Your task to perform on an android device: turn on the 12-hour format for clock Image 0: 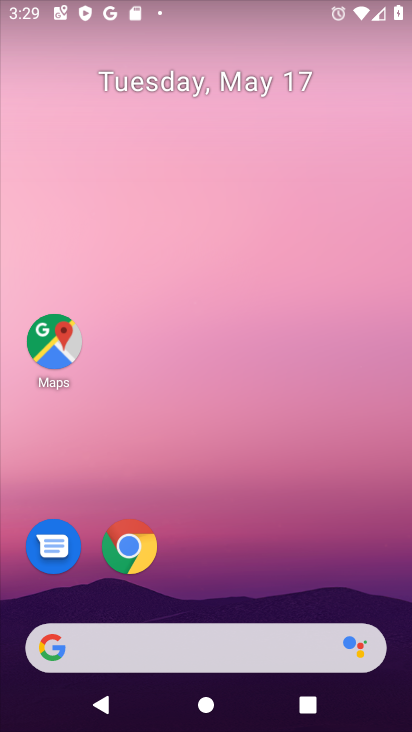
Step 0: drag from (405, 684) to (324, 316)
Your task to perform on an android device: turn on the 12-hour format for clock Image 1: 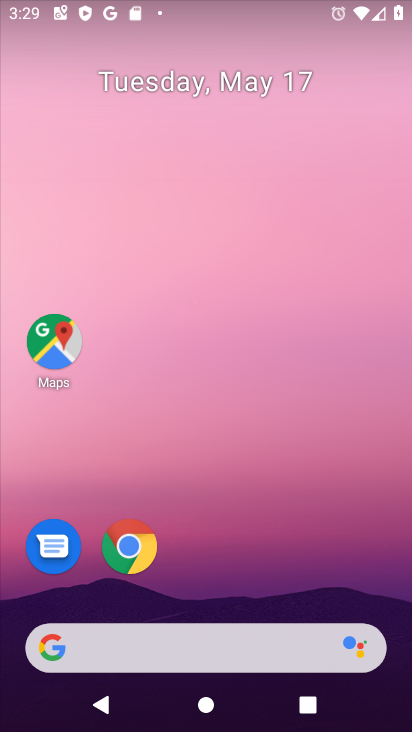
Step 1: click (371, 311)
Your task to perform on an android device: turn on the 12-hour format for clock Image 2: 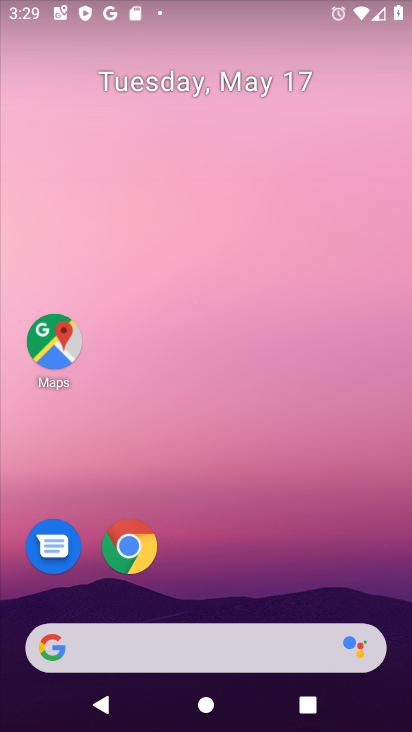
Step 2: drag from (403, 672) to (342, 381)
Your task to perform on an android device: turn on the 12-hour format for clock Image 3: 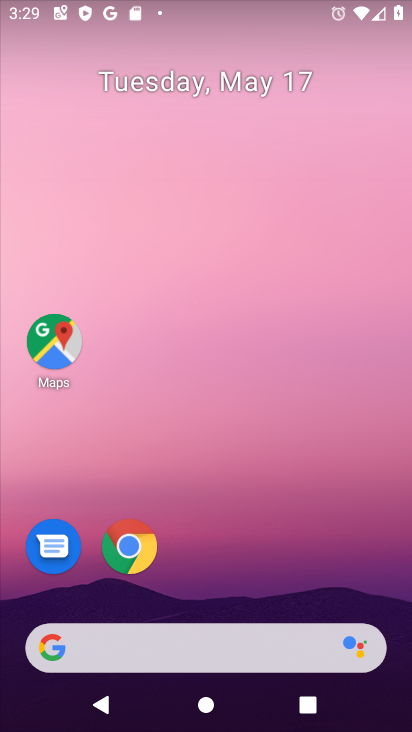
Step 3: drag from (381, 529) to (340, 151)
Your task to perform on an android device: turn on the 12-hour format for clock Image 4: 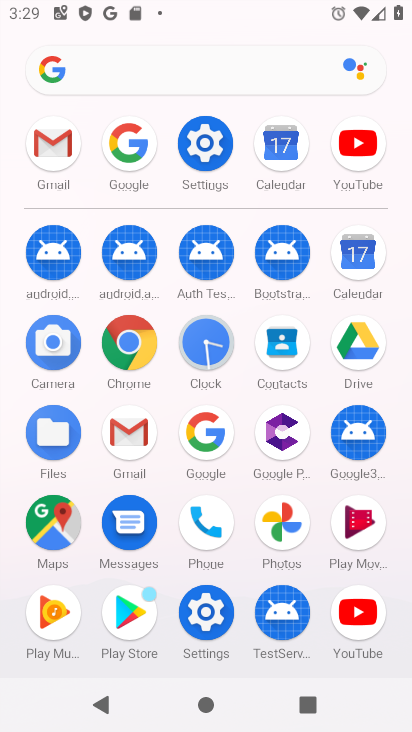
Step 4: click (210, 347)
Your task to perform on an android device: turn on the 12-hour format for clock Image 5: 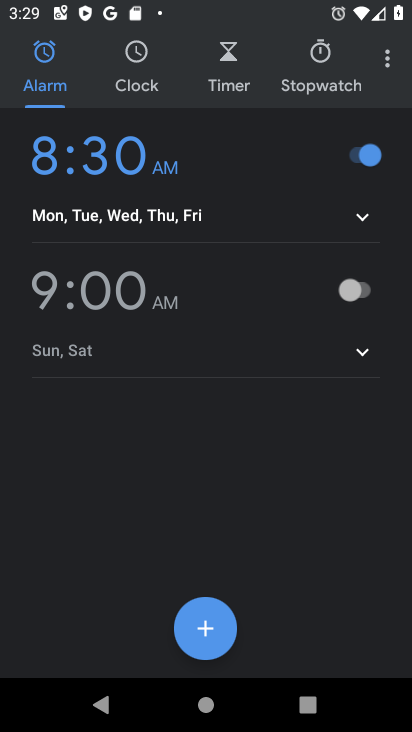
Step 5: click (387, 57)
Your task to perform on an android device: turn on the 12-hour format for clock Image 6: 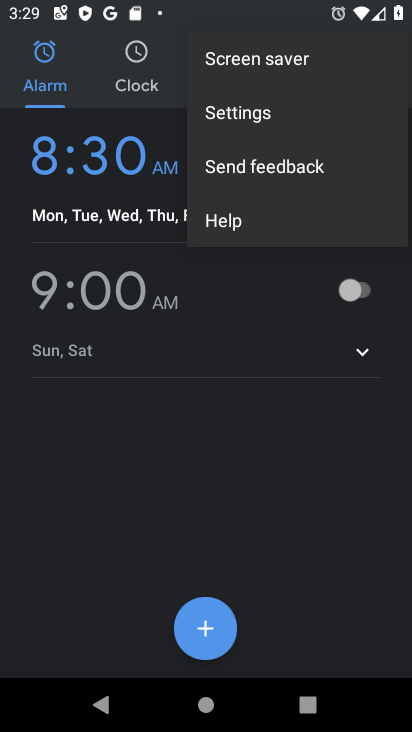
Step 6: click (230, 114)
Your task to perform on an android device: turn on the 12-hour format for clock Image 7: 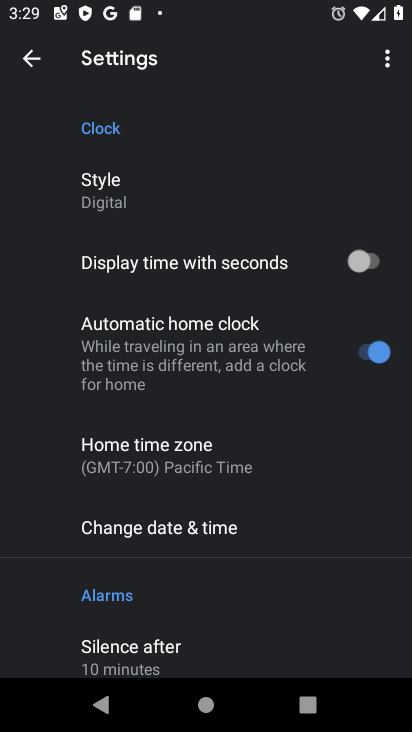
Step 7: click (142, 534)
Your task to perform on an android device: turn on the 12-hour format for clock Image 8: 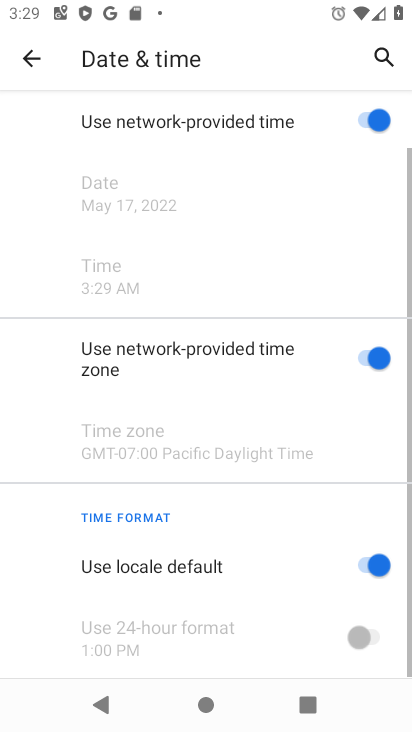
Step 8: task complete